Your task to perform on an android device: Go to Amazon Image 0: 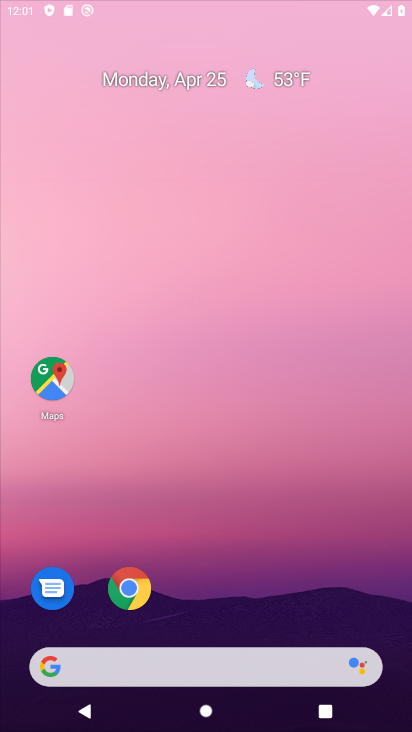
Step 0: drag from (314, 611) to (255, 224)
Your task to perform on an android device: Go to Amazon Image 1: 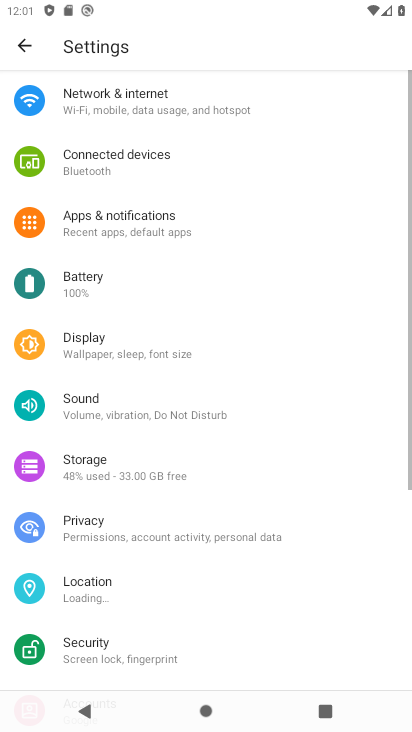
Step 1: press home button
Your task to perform on an android device: Go to Amazon Image 2: 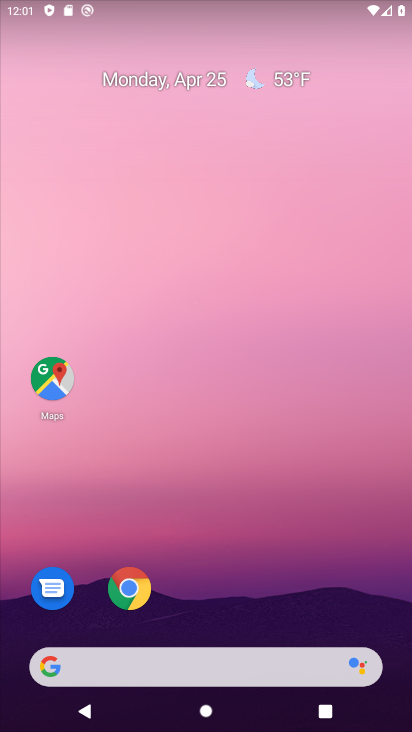
Step 2: drag from (288, 609) to (254, 149)
Your task to perform on an android device: Go to Amazon Image 3: 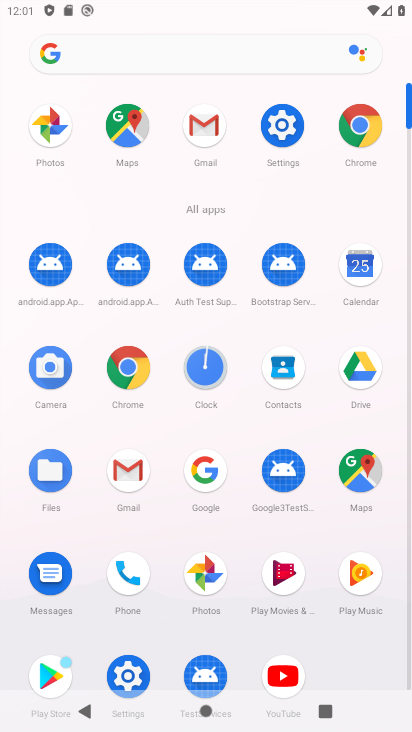
Step 3: click (367, 125)
Your task to perform on an android device: Go to Amazon Image 4: 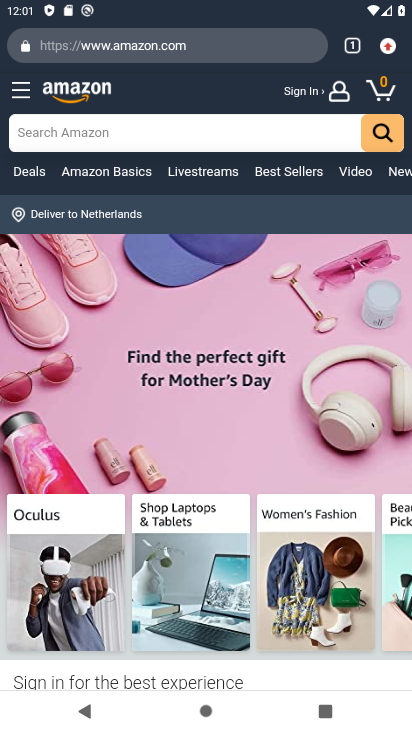
Step 4: task complete